Your task to perform on an android device: empty trash in google photos Image 0: 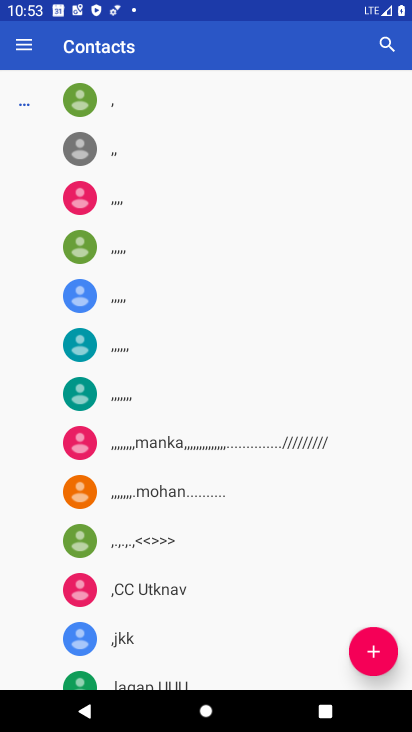
Step 0: press home button
Your task to perform on an android device: empty trash in google photos Image 1: 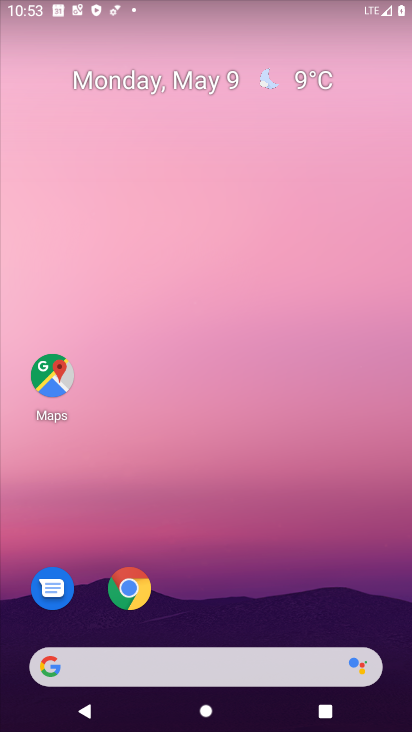
Step 1: drag from (201, 664) to (324, 176)
Your task to perform on an android device: empty trash in google photos Image 2: 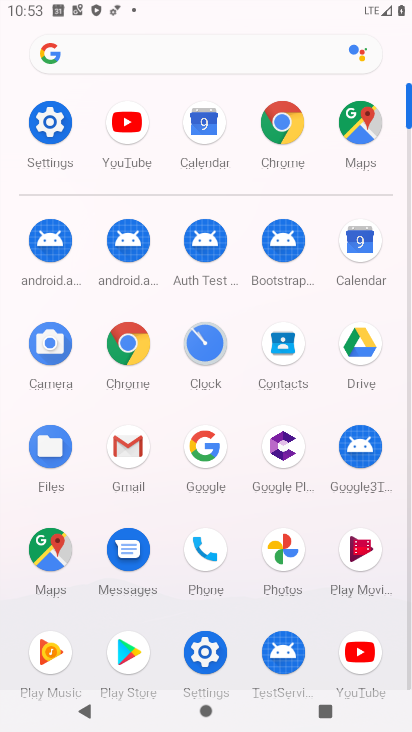
Step 2: click (286, 551)
Your task to perform on an android device: empty trash in google photos Image 3: 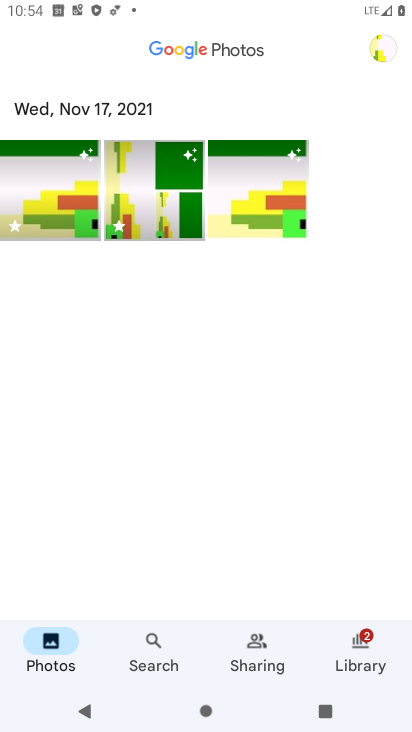
Step 3: click (378, 54)
Your task to perform on an android device: empty trash in google photos Image 4: 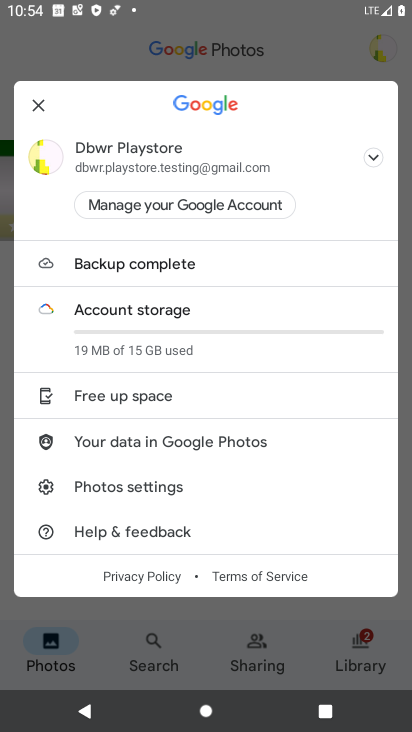
Step 4: drag from (238, 216) to (269, 166)
Your task to perform on an android device: empty trash in google photos Image 5: 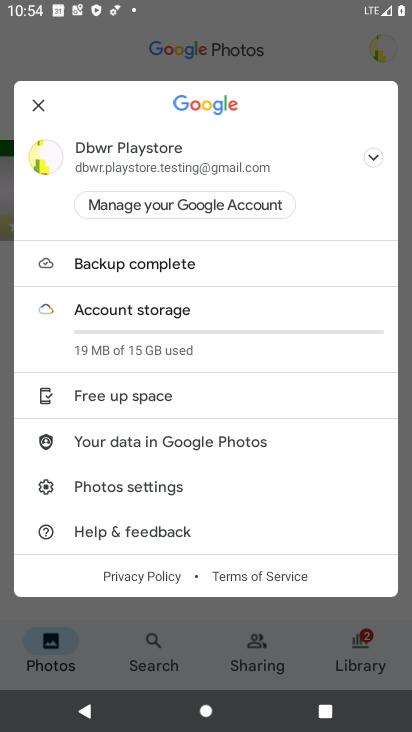
Step 5: click (152, 488)
Your task to perform on an android device: empty trash in google photos Image 6: 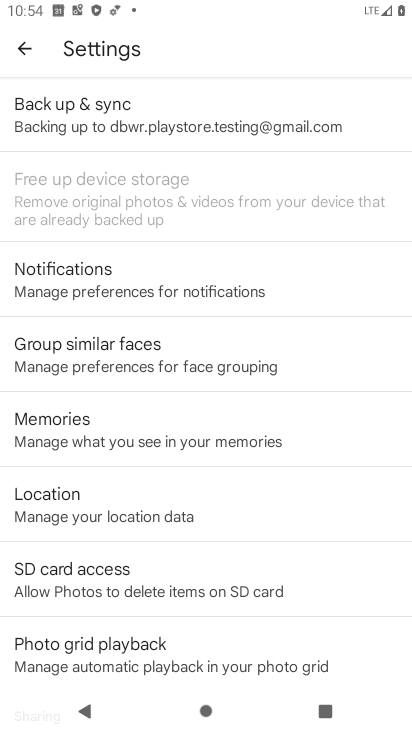
Step 6: task complete